Your task to perform on an android device: empty trash in the gmail app Image 0: 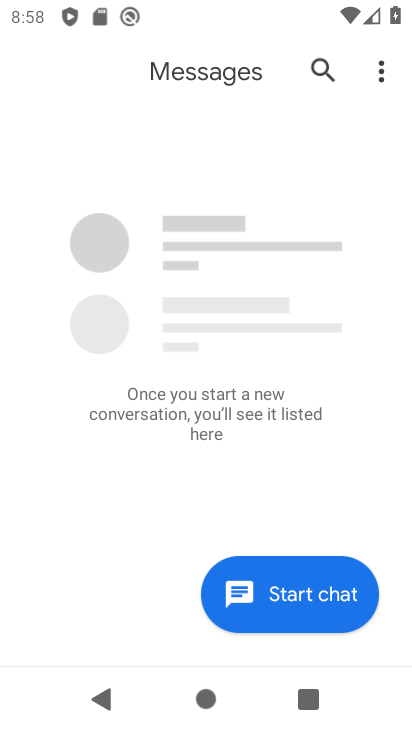
Step 0: press home button
Your task to perform on an android device: empty trash in the gmail app Image 1: 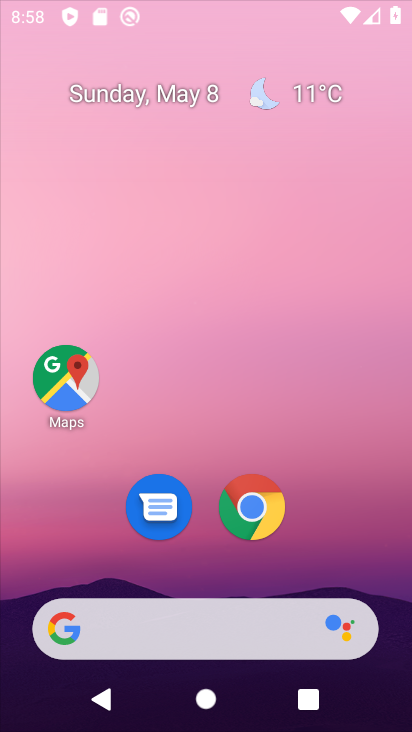
Step 1: press home button
Your task to perform on an android device: empty trash in the gmail app Image 2: 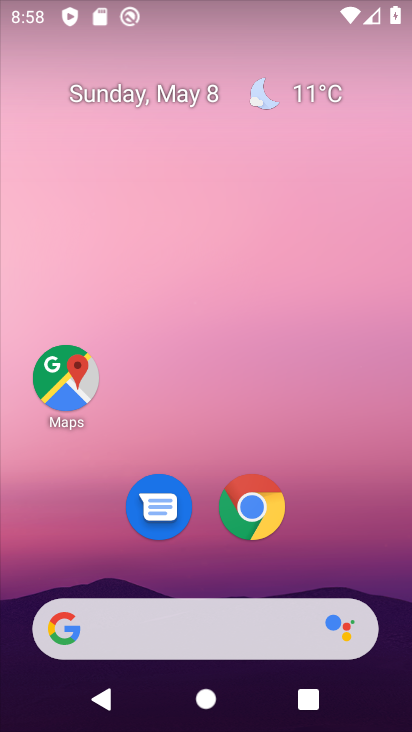
Step 2: drag from (320, 605) to (325, 241)
Your task to perform on an android device: empty trash in the gmail app Image 3: 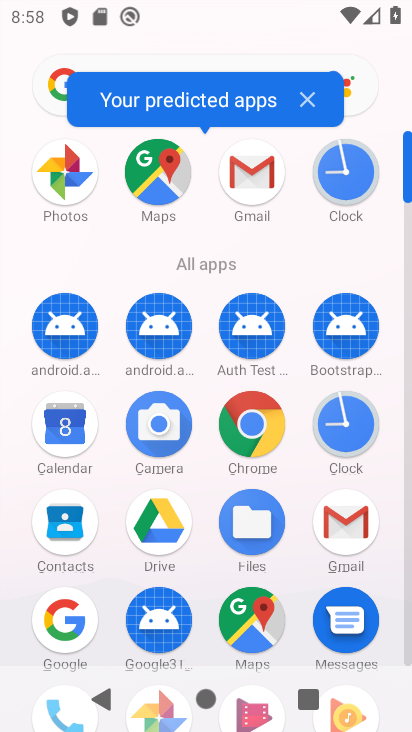
Step 3: click (252, 186)
Your task to perform on an android device: empty trash in the gmail app Image 4: 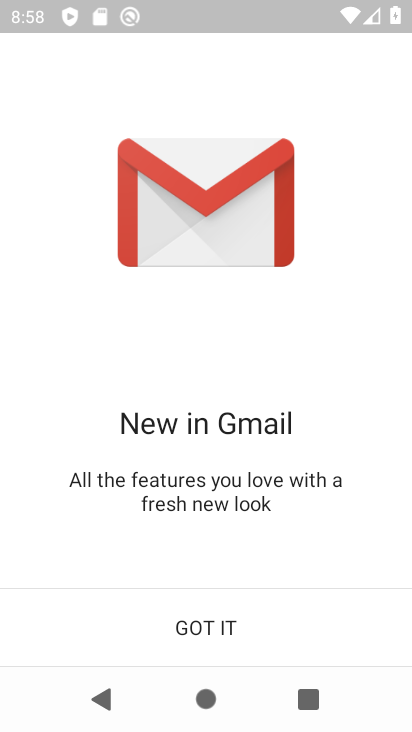
Step 4: click (267, 602)
Your task to perform on an android device: empty trash in the gmail app Image 5: 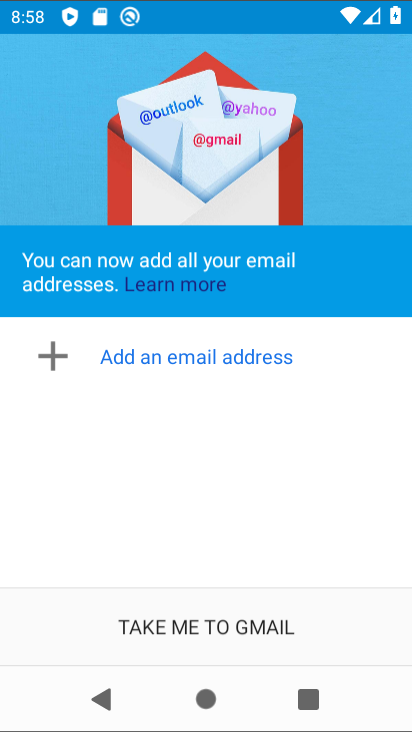
Step 5: click (267, 602)
Your task to perform on an android device: empty trash in the gmail app Image 6: 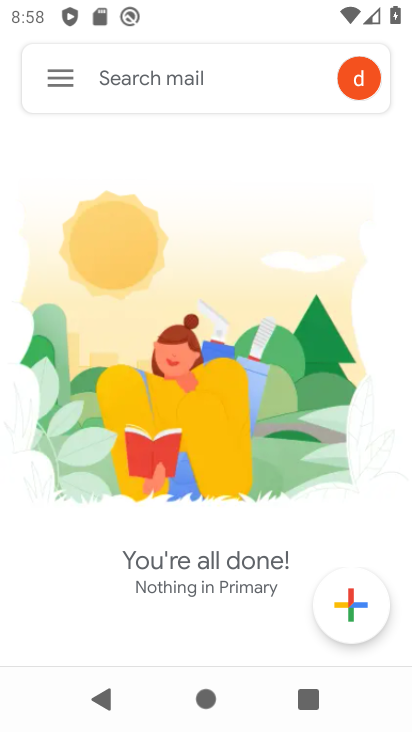
Step 6: click (73, 81)
Your task to perform on an android device: empty trash in the gmail app Image 7: 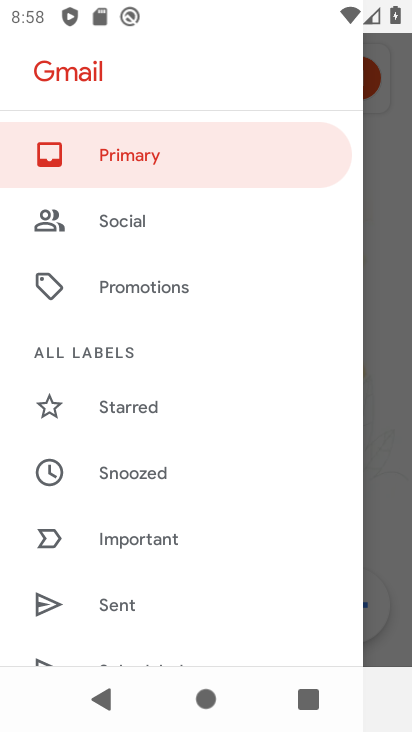
Step 7: drag from (195, 568) to (283, 283)
Your task to perform on an android device: empty trash in the gmail app Image 8: 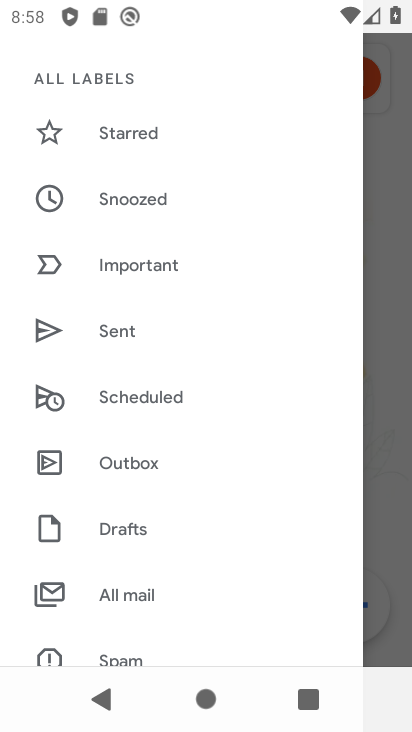
Step 8: drag from (231, 572) to (271, 349)
Your task to perform on an android device: empty trash in the gmail app Image 9: 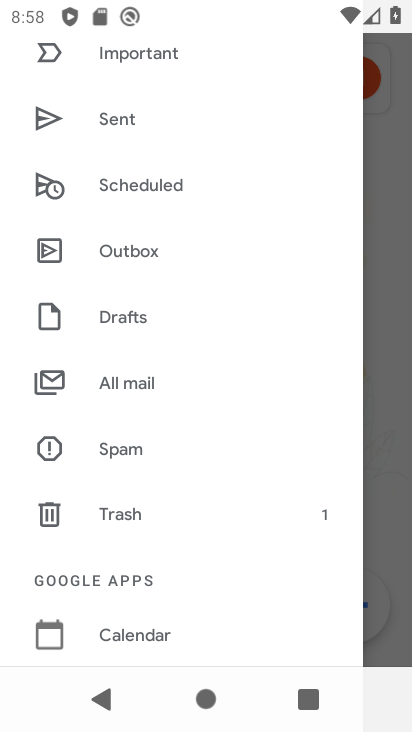
Step 9: click (207, 507)
Your task to perform on an android device: empty trash in the gmail app Image 10: 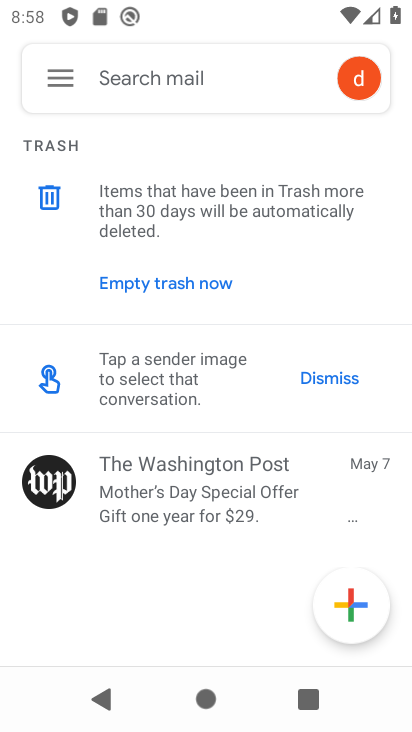
Step 10: click (183, 291)
Your task to perform on an android device: empty trash in the gmail app Image 11: 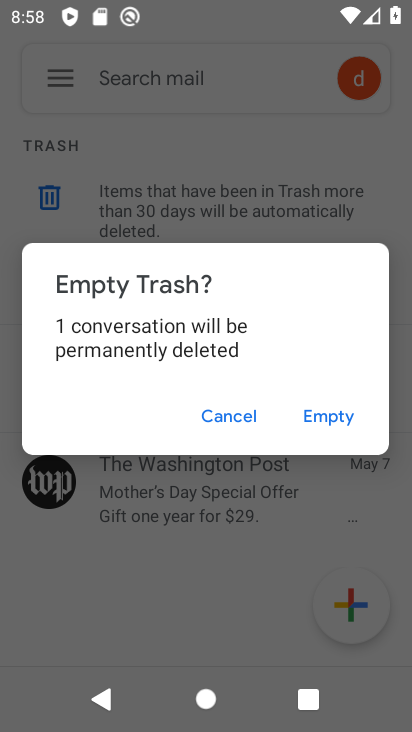
Step 11: click (341, 422)
Your task to perform on an android device: empty trash in the gmail app Image 12: 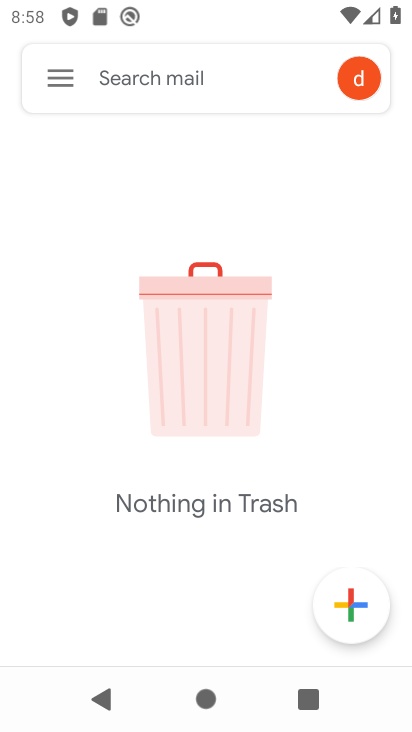
Step 12: task complete